Your task to perform on an android device: Where can I buy a nice beach tent? Image 0: 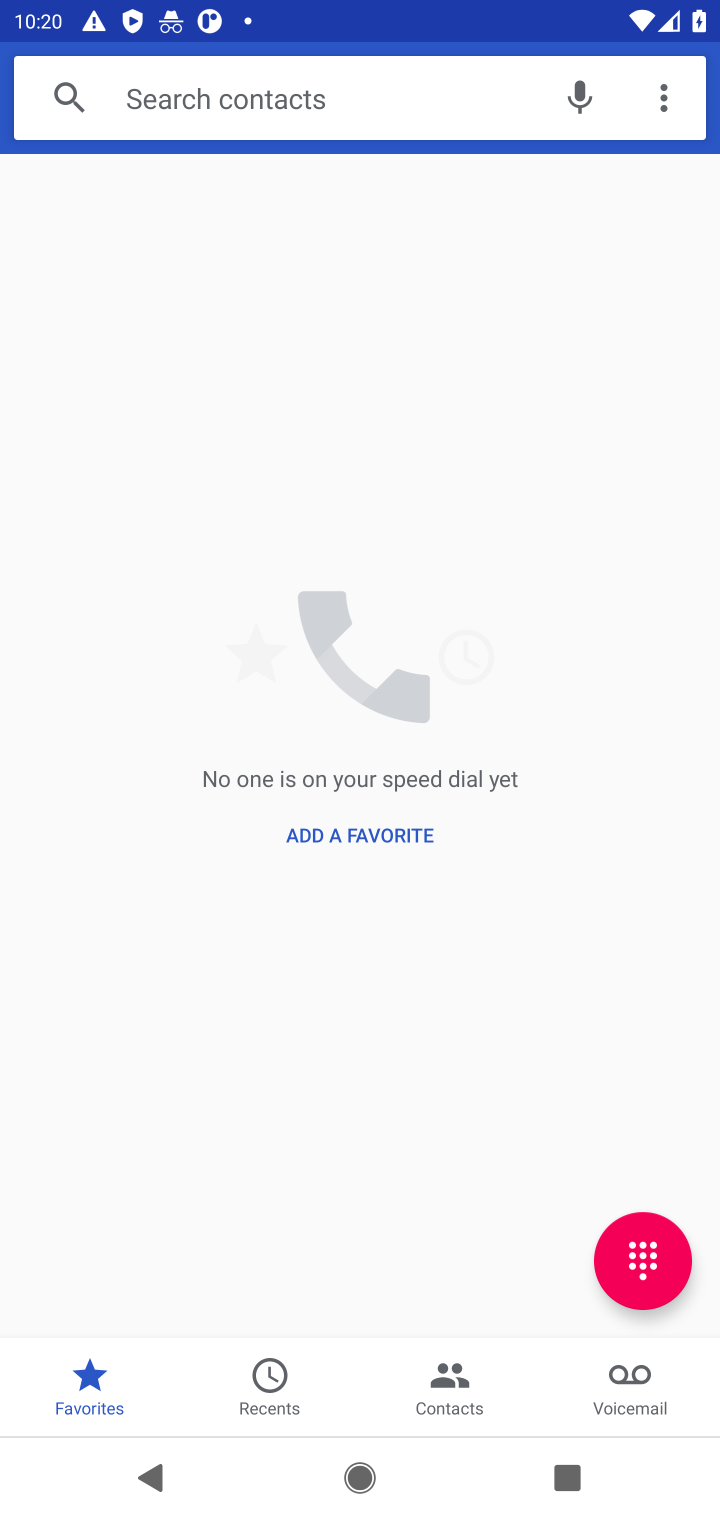
Step 0: press home button
Your task to perform on an android device: Where can I buy a nice beach tent? Image 1: 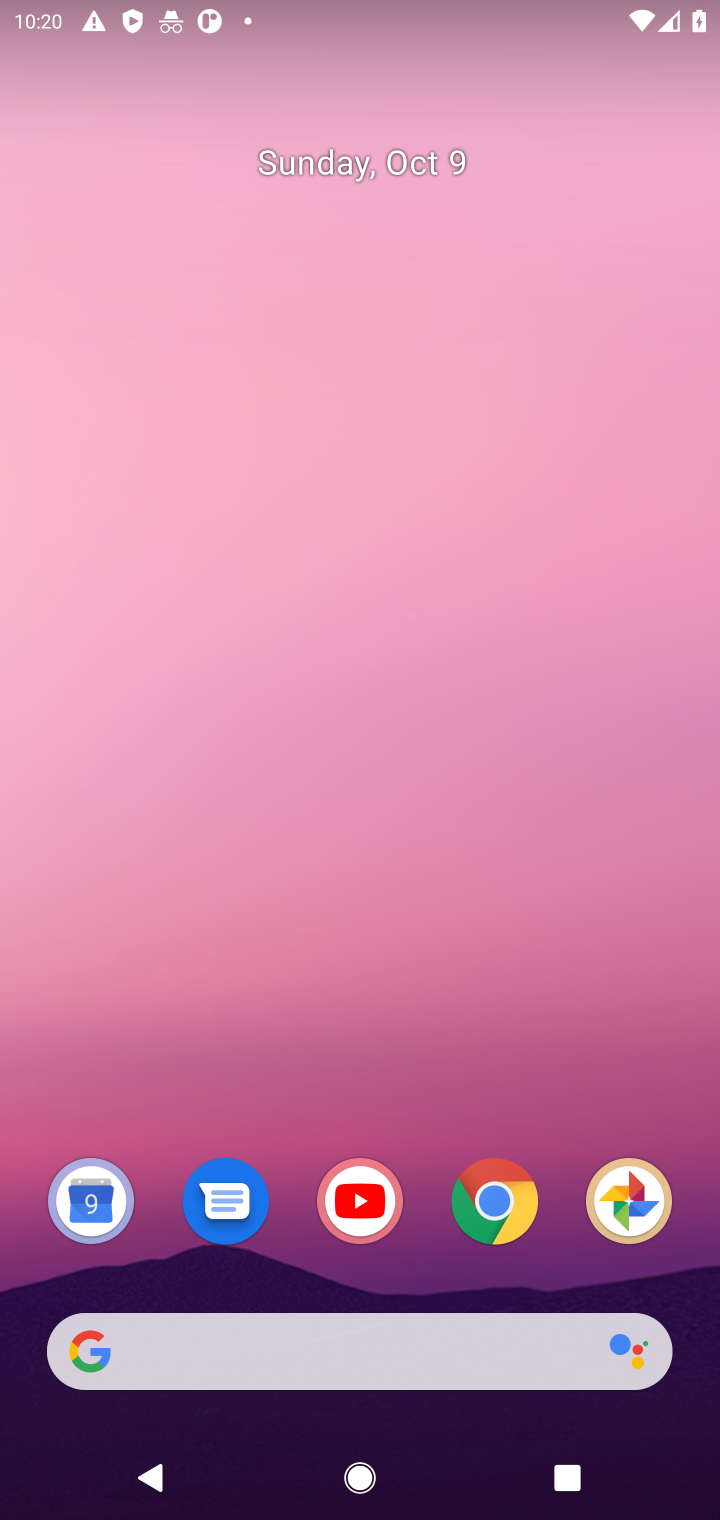
Step 1: click (490, 1210)
Your task to perform on an android device: Where can I buy a nice beach tent? Image 2: 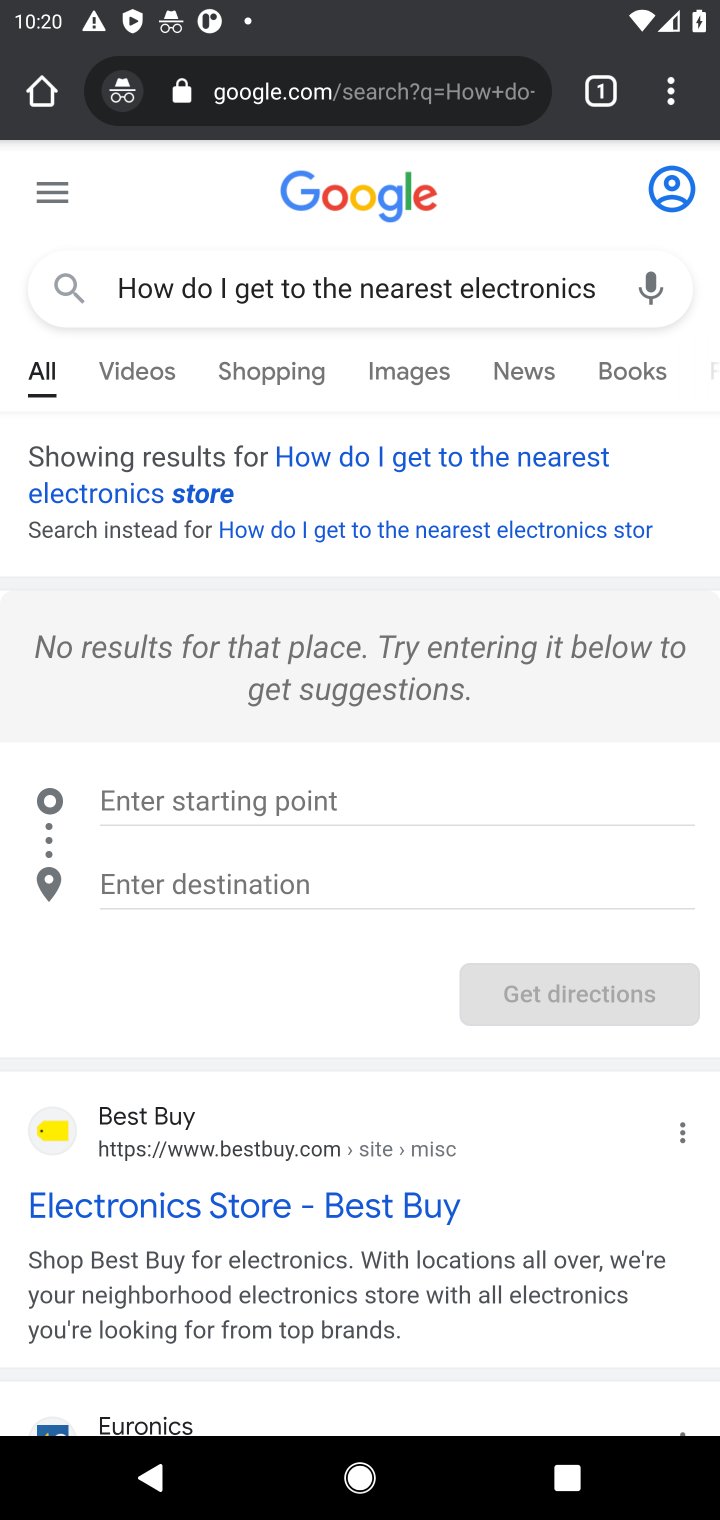
Step 2: click (347, 93)
Your task to perform on an android device: Where can I buy a nice beach tent? Image 3: 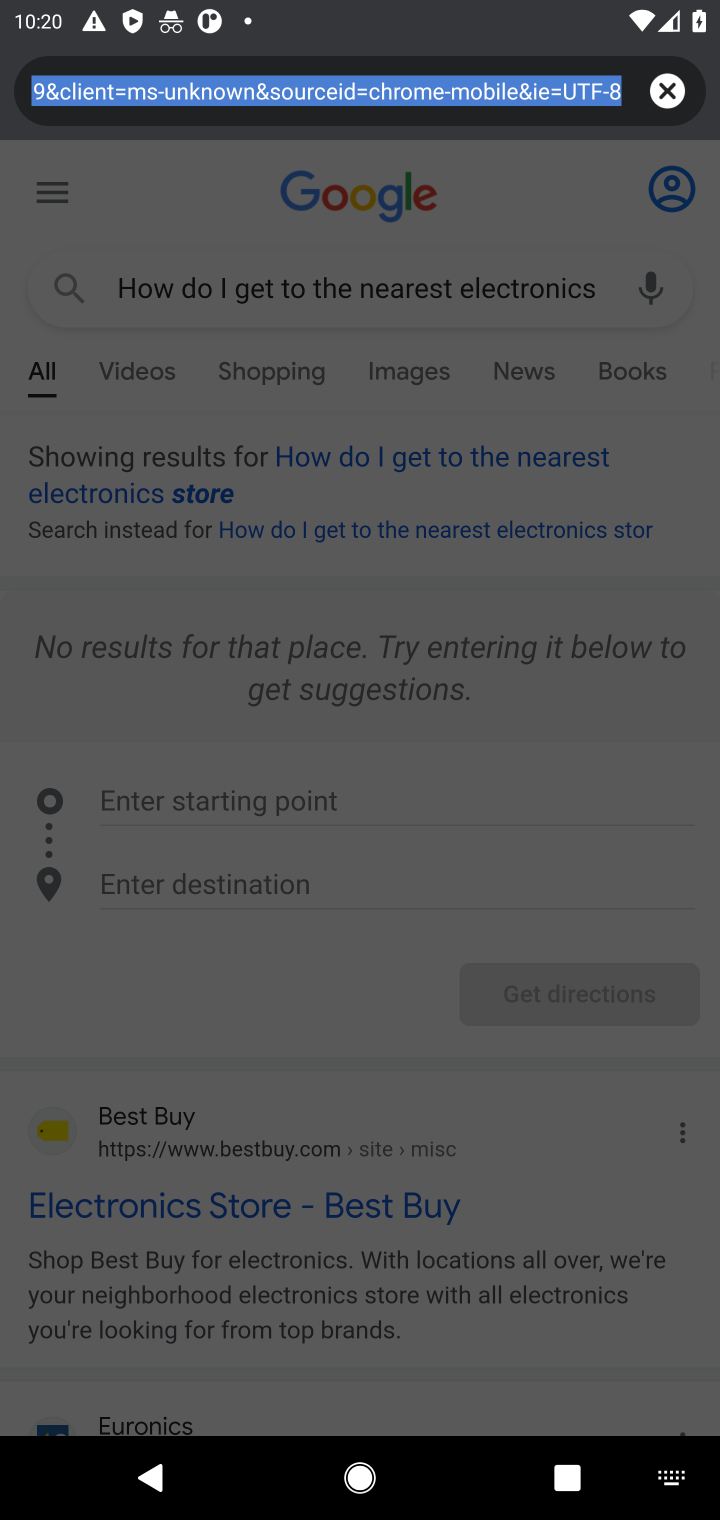
Step 3: type "Where can I buy a nice beach tent?"
Your task to perform on an android device: Where can I buy a nice beach tent? Image 4: 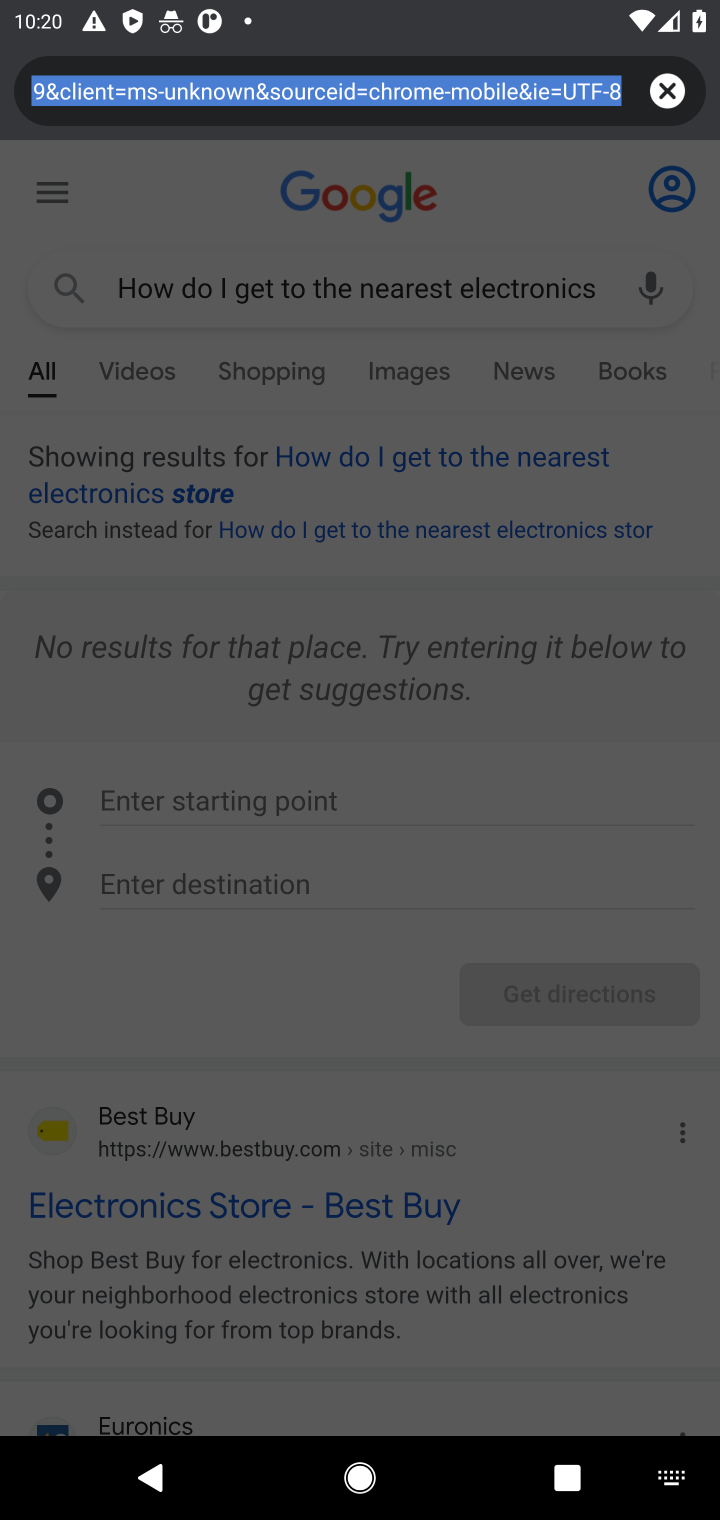
Step 4: click (470, 79)
Your task to perform on an android device: Where can I buy a nice beach tent? Image 5: 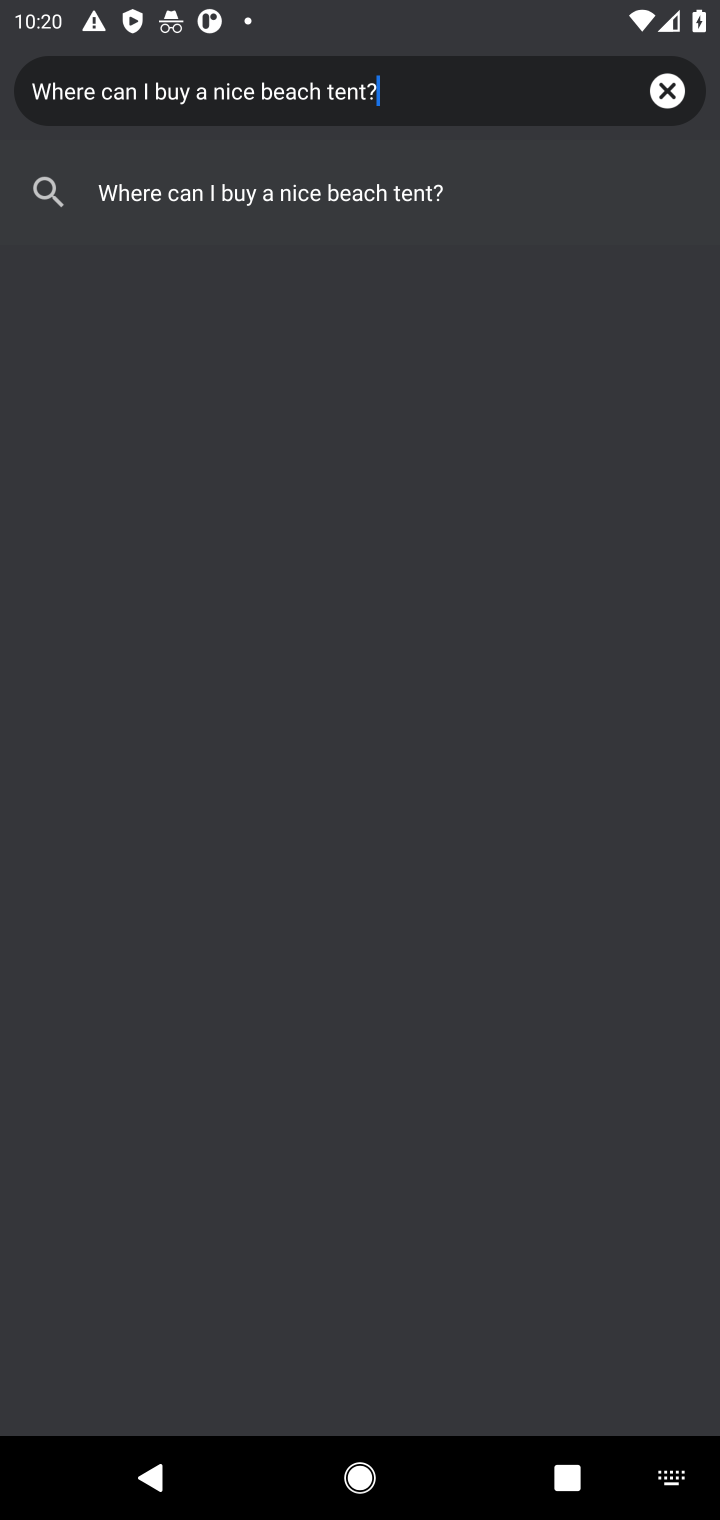
Step 5: click (270, 197)
Your task to perform on an android device: Where can I buy a nice beach tent? Image 6: 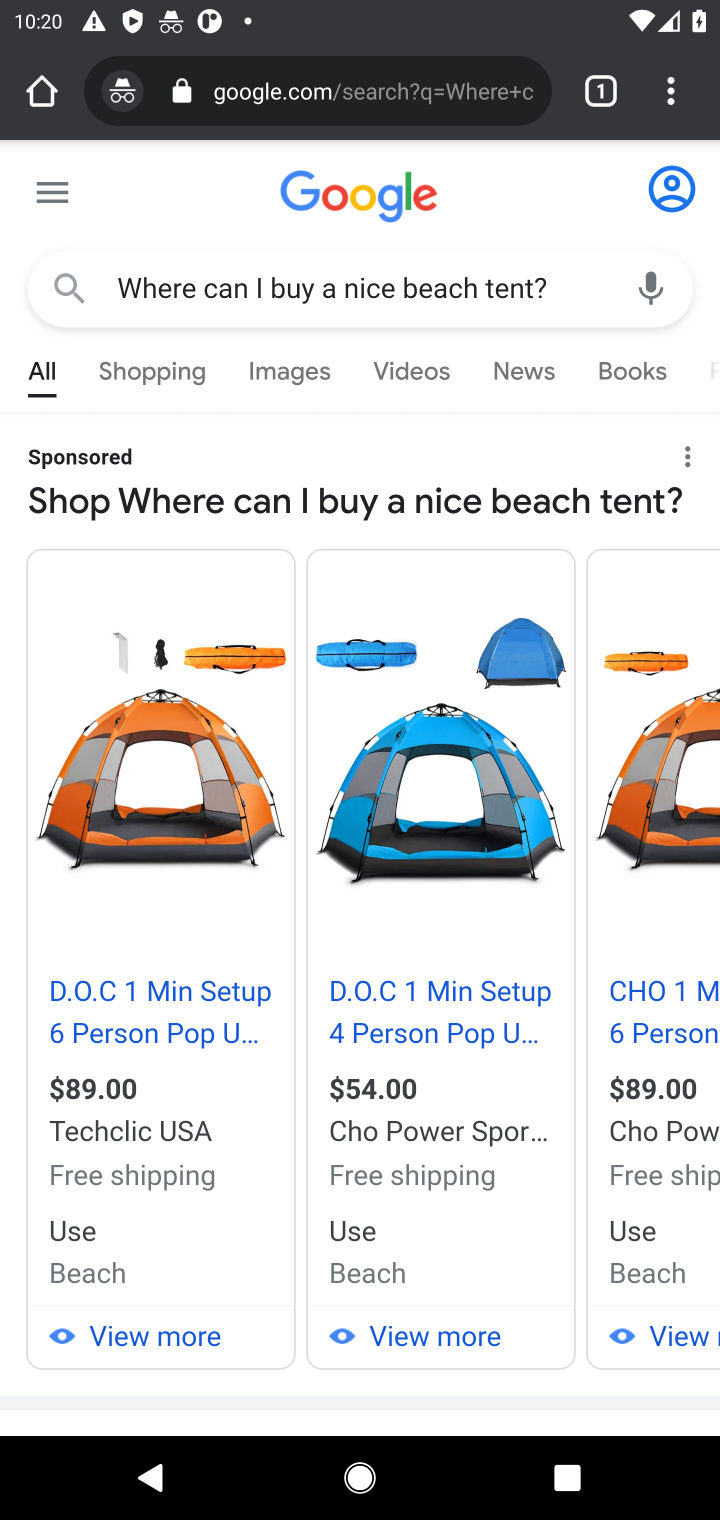
Step 6: task complete